Your task to perform on an android device: Go to Google maps Image 0: 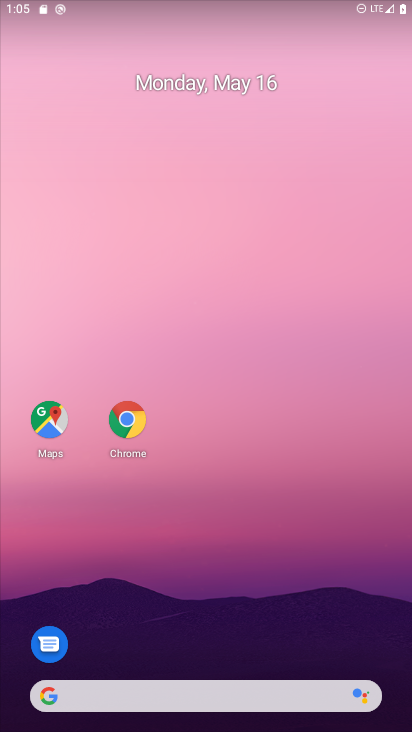
Step 0: drag from (225, 612) to (4, 22)
Your task to perform on an android device: Go to Google maps Image 1: 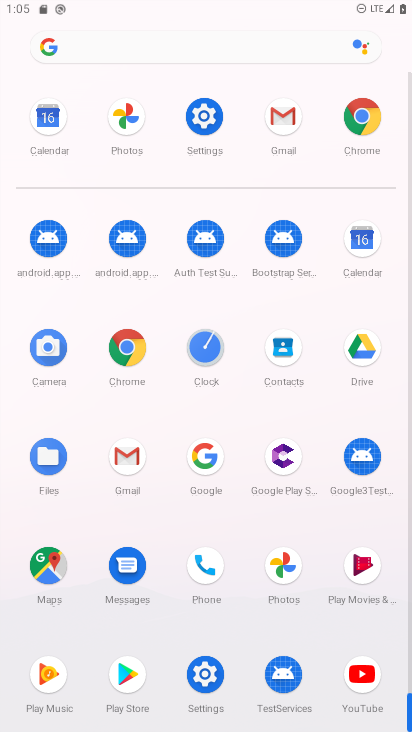
Step 1: click (58, 550)
Your task to perform on an android device: Go to Google maps Image 2: 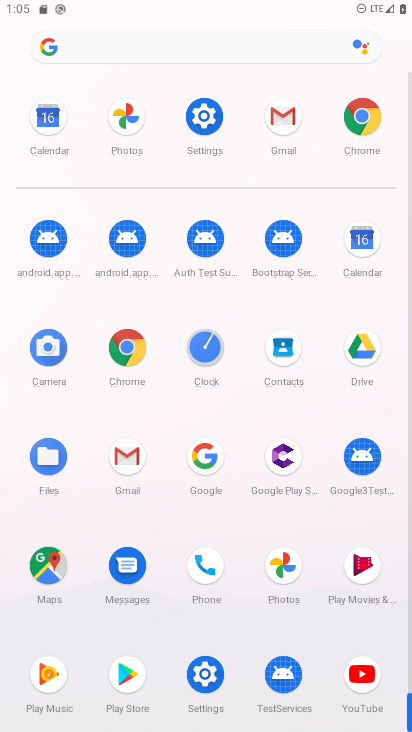
Step 2: click (58, 550)
Your task to perform on an android device: Go to Google maps Image 3: 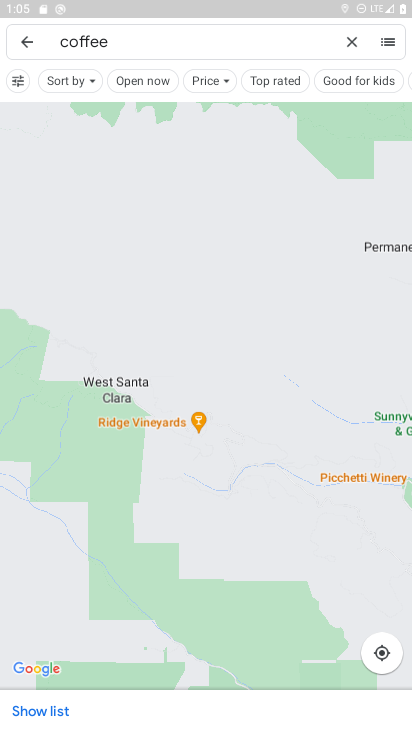
Step 3: click (228, 275)
Your task to perform on an android device: Go to Google maps Image 4: 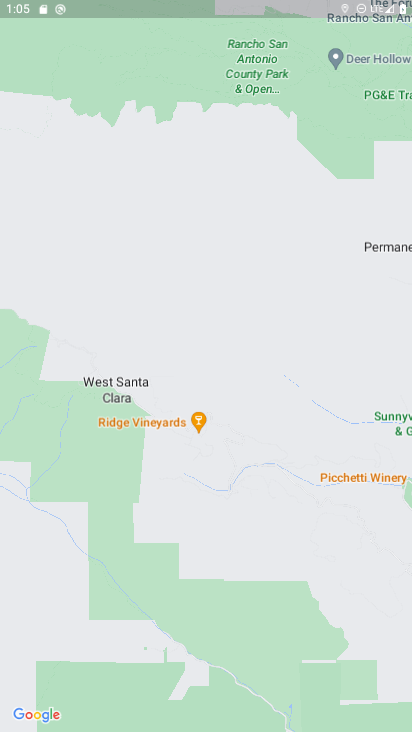
Step 4: task complete